Your task to perform on an android device: check storage Image 0: 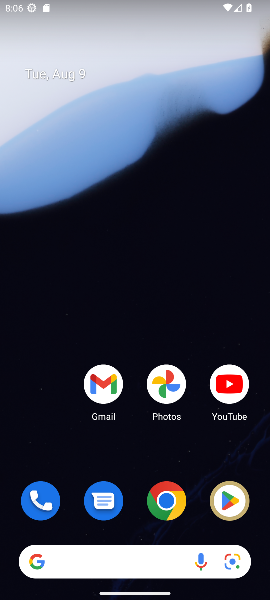
Step 0: press home button
Your task to perform on an android device: check storage Image 1: 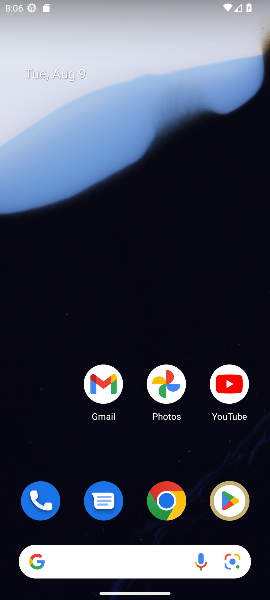
Step 1: drag from (136, 444) to (140, 68)
Your task to perform on an android device: check storage Image 2: 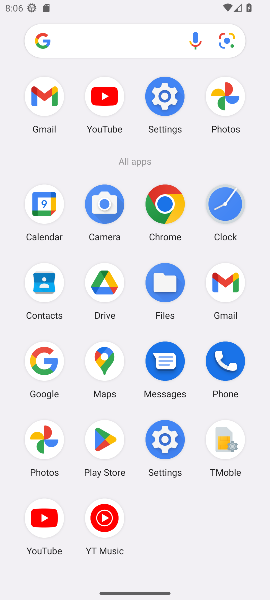
Step 2: click (166, 439)
Your task to perform on an android device: check storage Image 3: 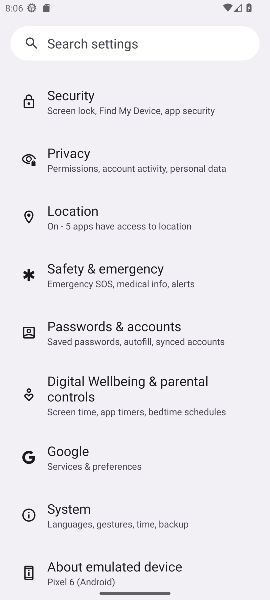
Step 3: drag from (101, 154) to (123, 421)
Your task to perform on an android device: check storage Image 4: 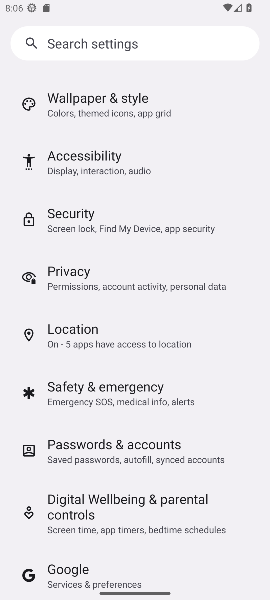
Step 4: drag from (94, 218) to (109, 386)
Your task to perform on an android device: check storage Image 5: 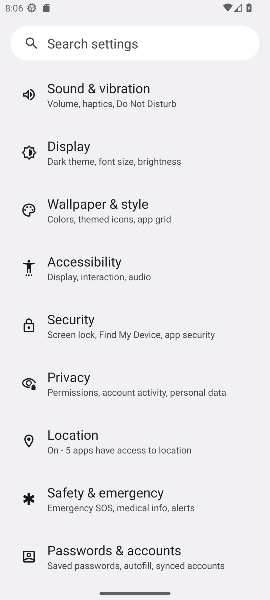
Step 5: drag from (109, 187) to (159, 391)
Your task to perform on an android device: check storage Image 6: 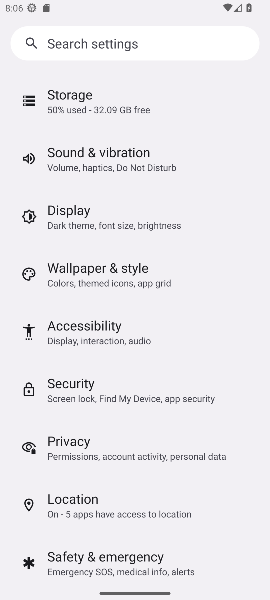
Step 6: click (146, 111)
Your task to perform on an android device: check storage Image 7: 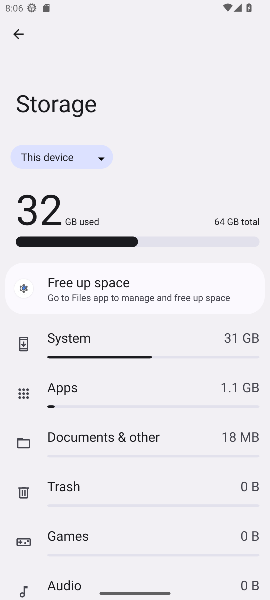
Step 7: task complete